Your task to perform on an android device: open chrome privacy settings Image 0: 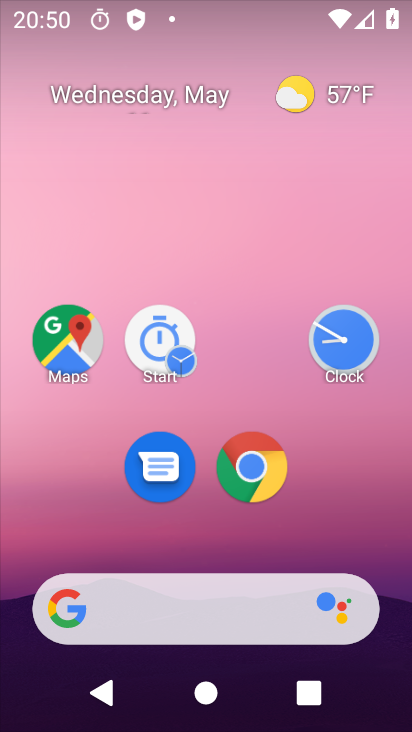
Step 0: drag from (331, 540) to (158, 1)
Your task to perform on an android device: open chrome privacy settings Image 1: 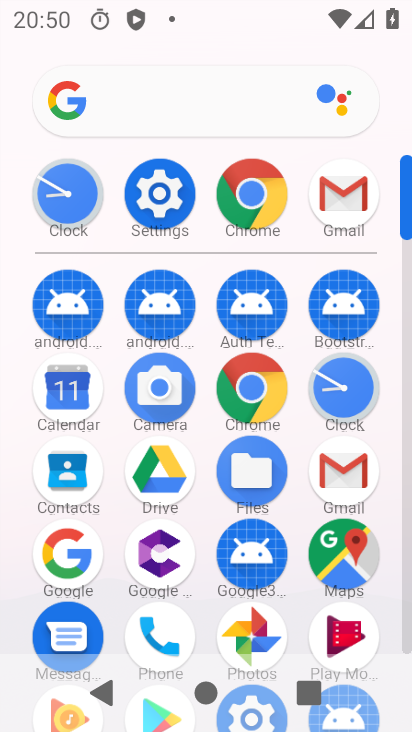
Step 1: click (252, 191)
Your task to perform on an android device: open chrome privacy settings Image 2: 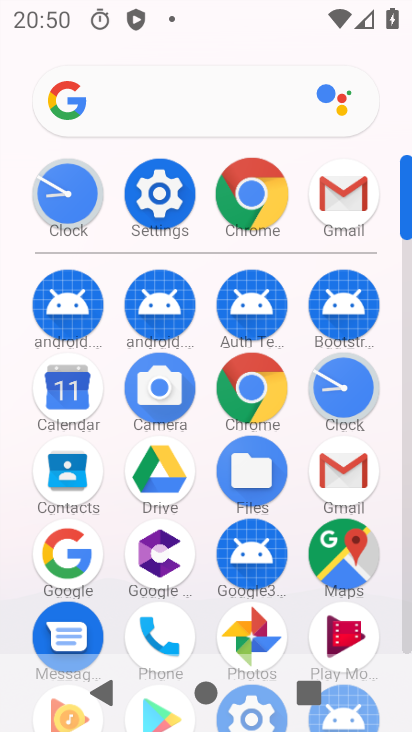
Step 2: click (252, 191)
Your task to perform on an android device: open chrome privacy settings Image 3: 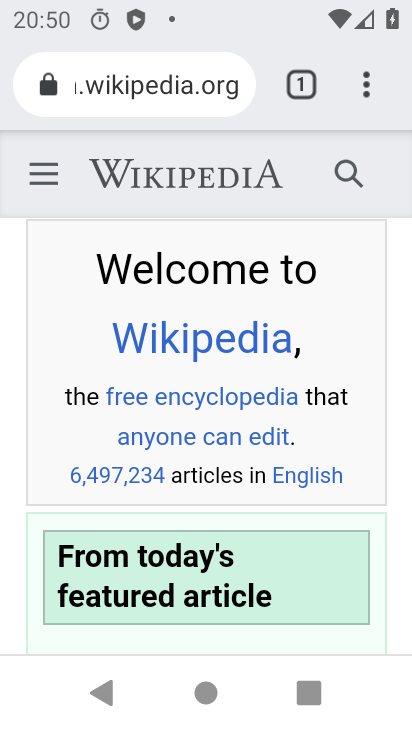
Step 3: drag from (364, 78) to (99, 507)
Your task to perform on an android device: open chrome privacy settings Image 4: 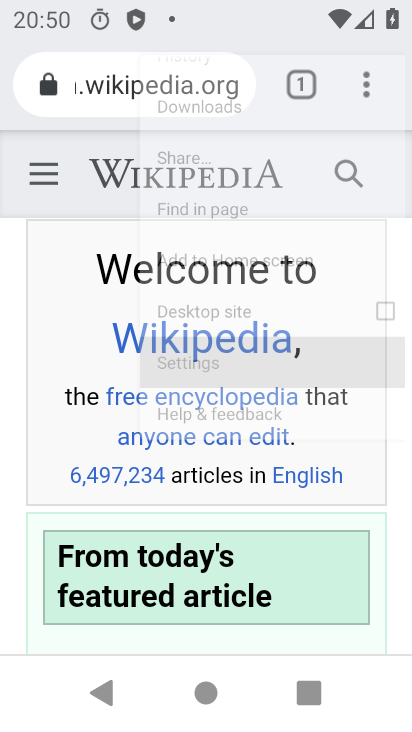
Step 4: click (101, 508)
Your task to perform on an android device: open chrome privacy settings Image 5: 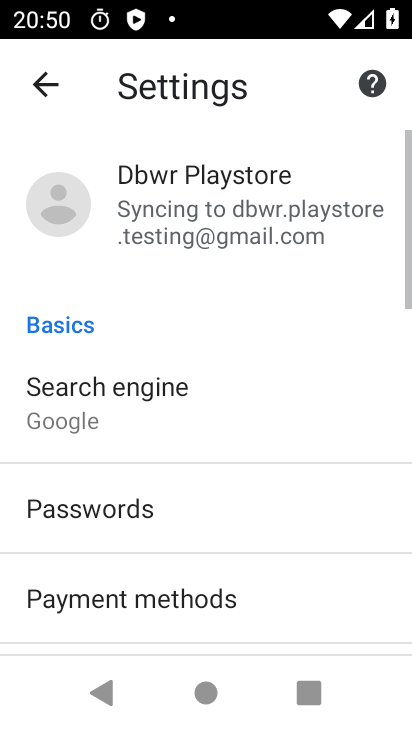
Step 5: drag from (161, 490) to (101, 13)
Your task to perform on an android device: open chrome privacy settings Image 6: 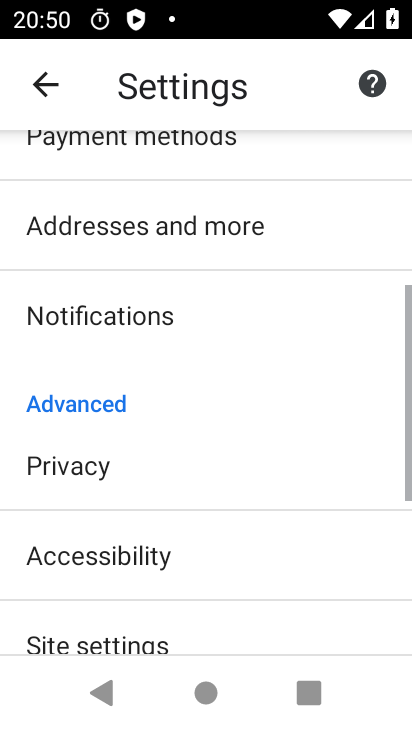
Step 6: drag from (199, 521) to (203, 144)
Your task to perform on an android device: open chrome privacy settings Image 7: 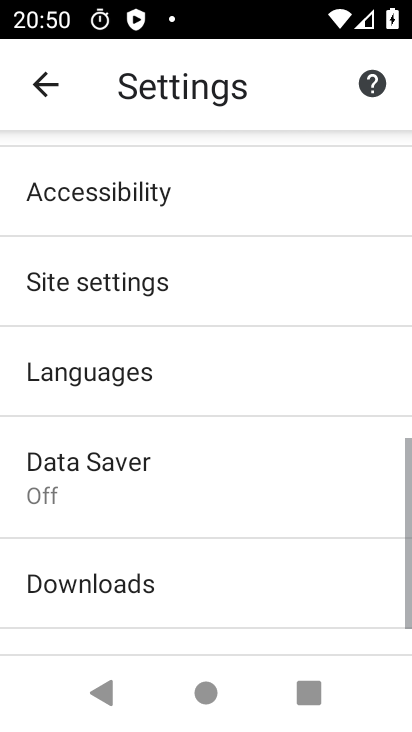
Step 7: drag from (221, 548) to (154, 24)
Your task to perform on an android device: open chrome privacy settings Image 8: 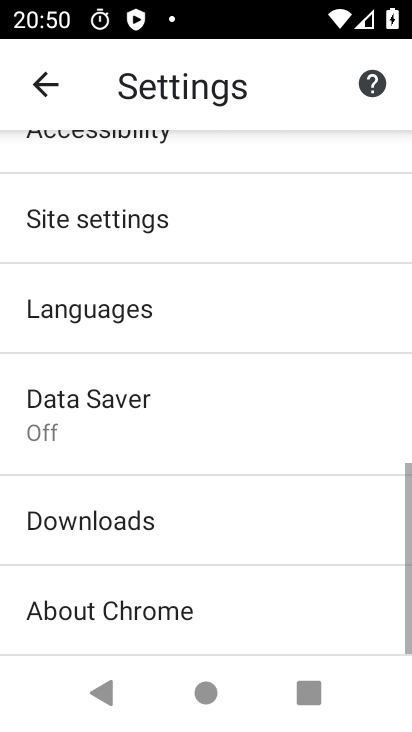
Step 8: drag from (194, 299) to (185, 158)
Your task to perform on an android device: open chrome privacy settings Image 9: 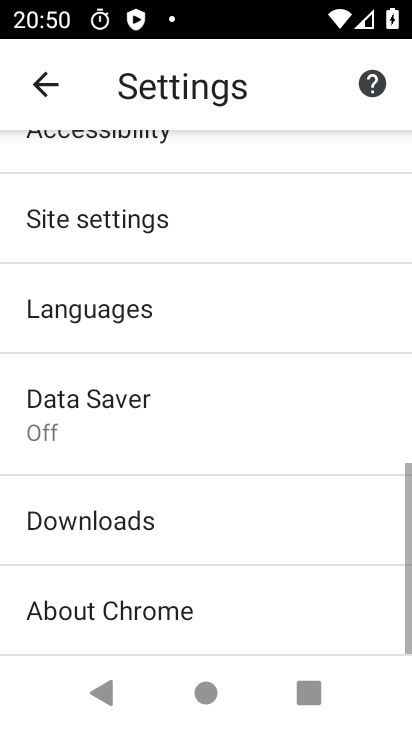
Step 9: drag from (104, 220) to (177, 556)
Your task to perform on an android device: open chrome privacy settings Image 10: 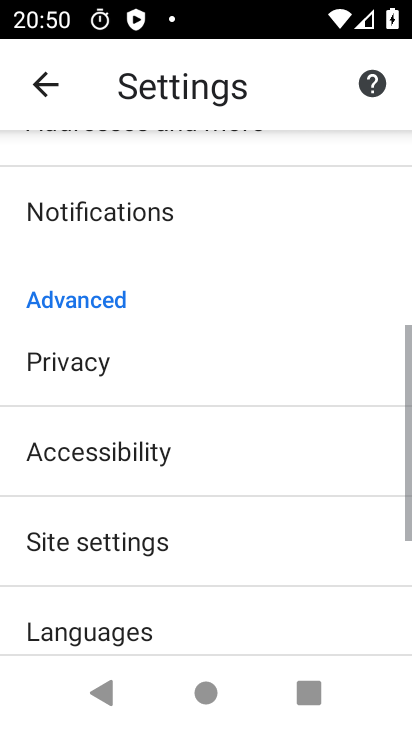
Step 10: drag from (95, 296) to (137, 582)
Your task to perform on an android device: open chrome privacy settings Image 11: 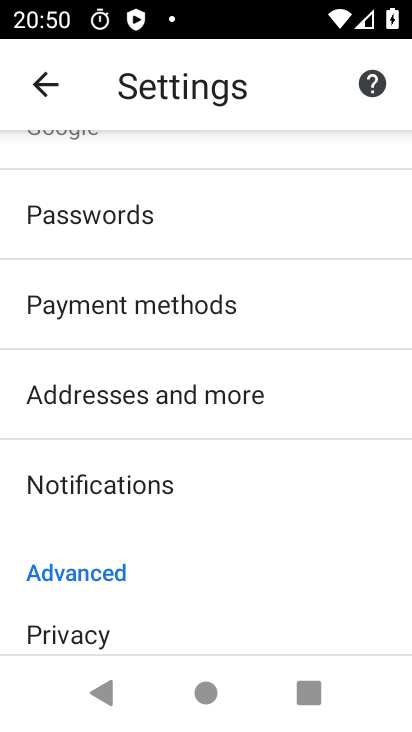
Step 11: drag from (91, 552) to (101, 257)
Your task to perform on an android device: open chrome privacy settings Image 12: 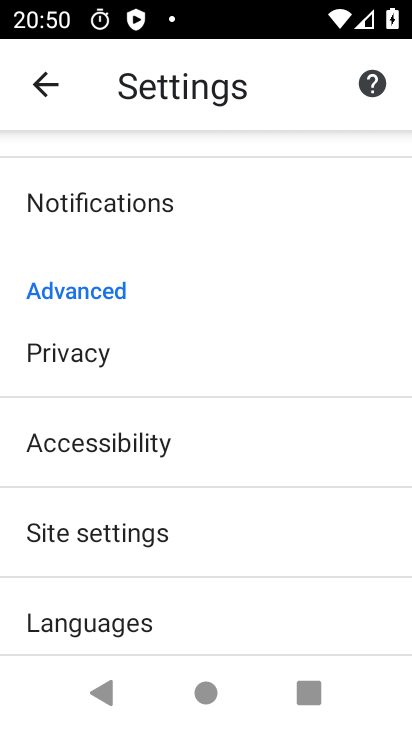
Step 12: click (63, 344)
Your task to perform on an android device: open chrome privacy settings Image 13: 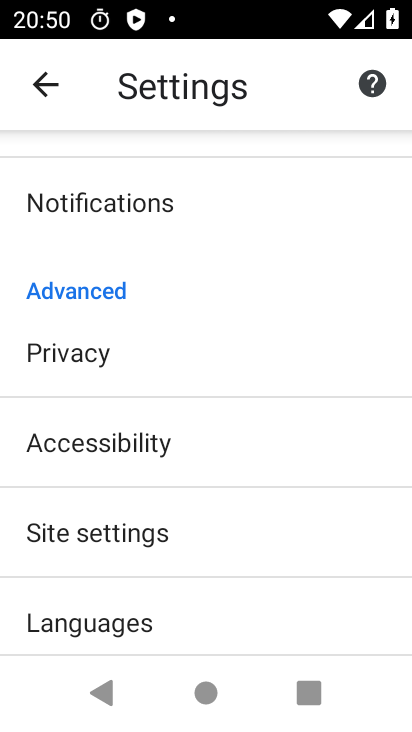
Step 13: click (63, 344)
Your task to perform on an android device: open chrome privacy settings Image 14: 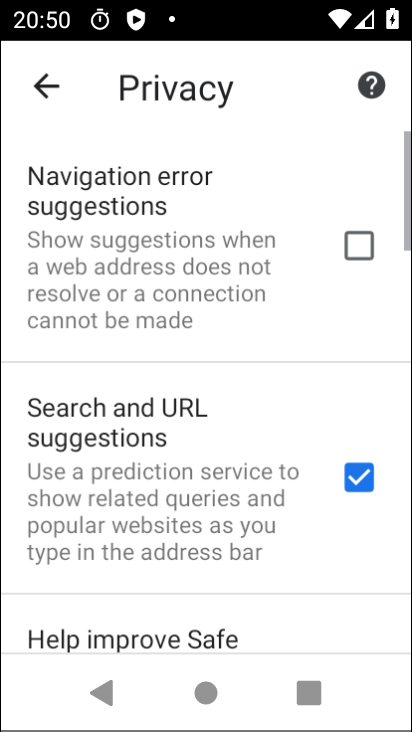
Step 14: click (63, 346)
Your task to perform on an android device: open chrome privacy settings Image 15: 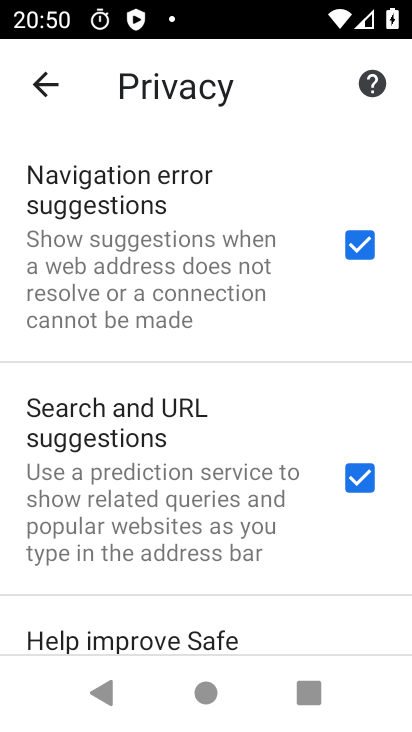
Step 15: drag from (141, 508) to (58, 186)
Your task to perform on an android device: open chrome privacy settings Image 16: 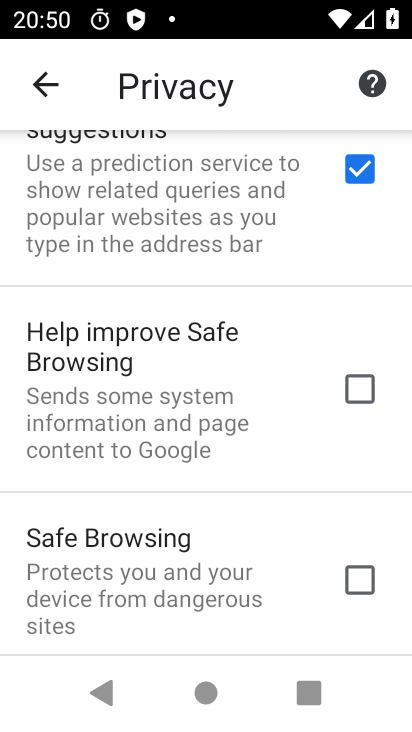
Step 16: drag from (237, 314) to (198, 12)
Your task to perform on an android device: open chrome privacy settings Image 17: 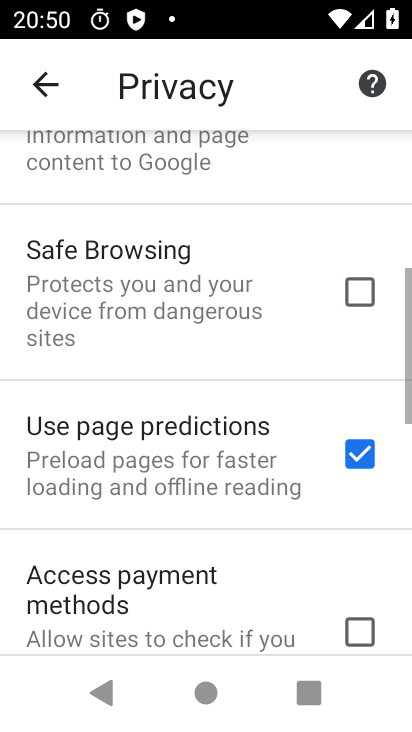
Step 17: drag from (189, 300) to (166, 126)
Your task to perform on an android device: open chrome privacy settings Image 18: 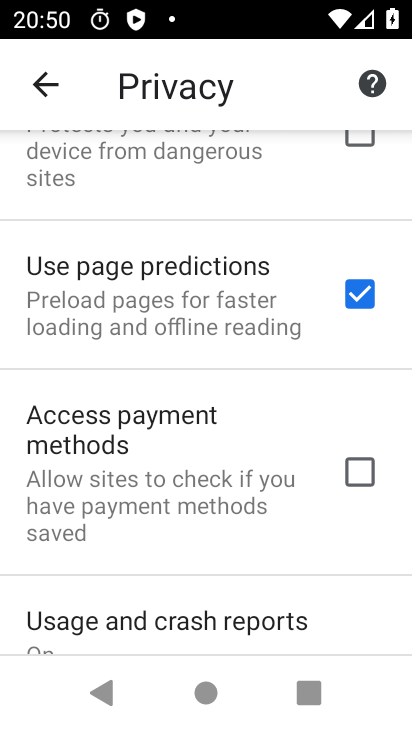
Step 18: drag from (165, 451) to (124, 167)
Your task to perform on an android device: open chrome privacy settings Image 19: 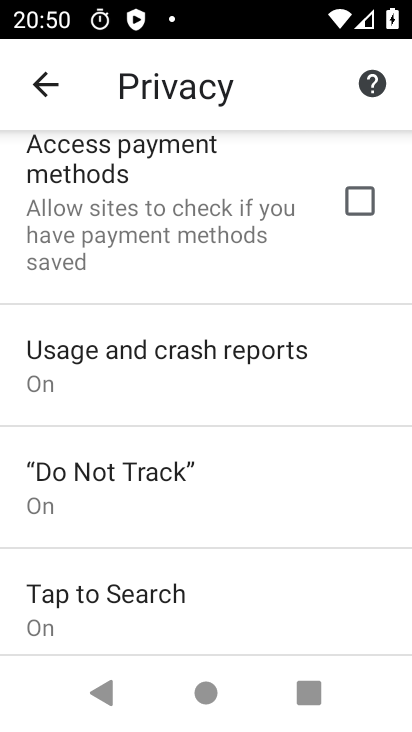
Step 19: click (158, 96)
Your task to perform on an android device: open chrome privacy settings Image 20: 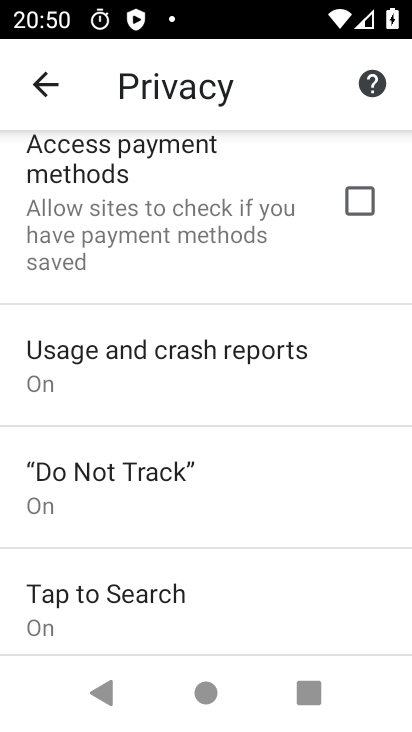
Step 20: task complete